Your task to perform on an android device: change the clock style Image 0: 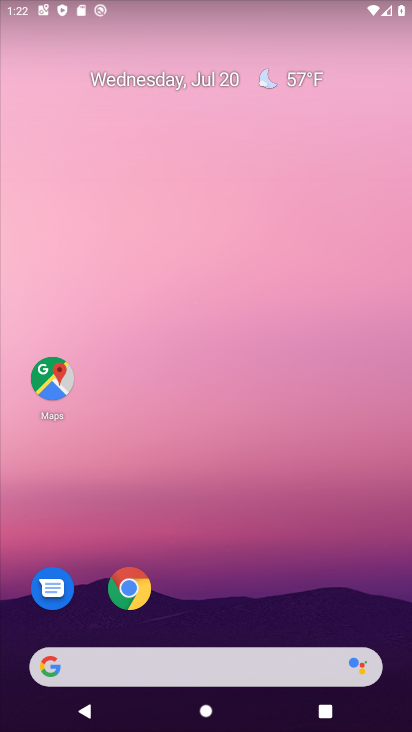
Step 0: press home button
Your task to perform on an android device: change the clock style Image 1: 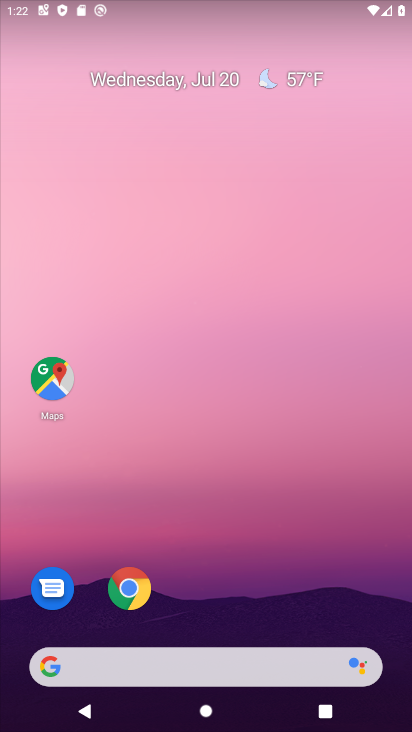
Step 1: drag from (91, 602) to (254, 148)
Your task to perform on an android device: change the clock style Image 2: 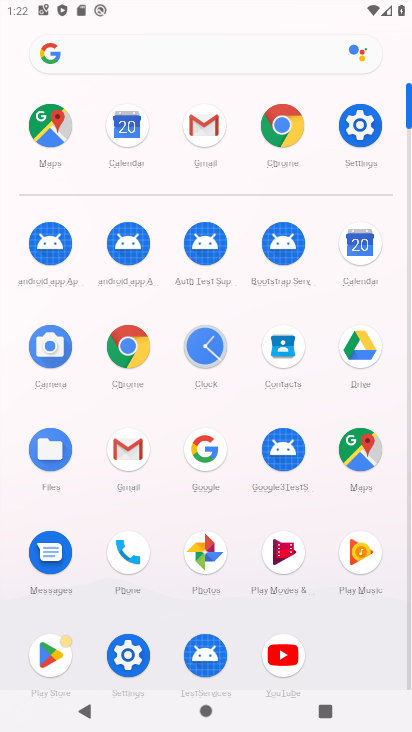
Step 2: click (196, 351)
Your task to perform on an android device: change the clock style Image 3: 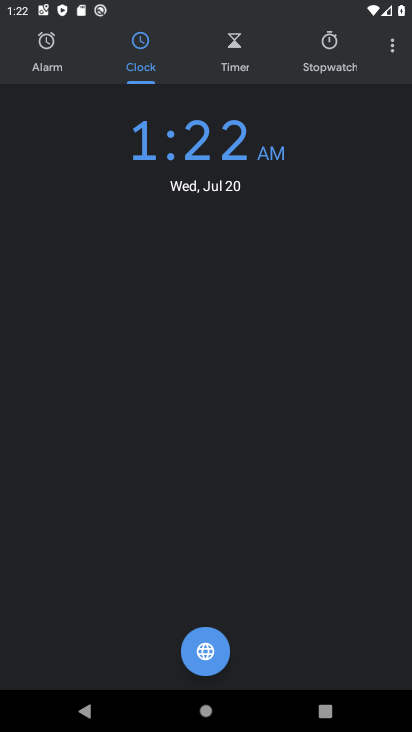
Step 3: click (389, 53)
Your task to perform on an android device: change the clock style Image 4: 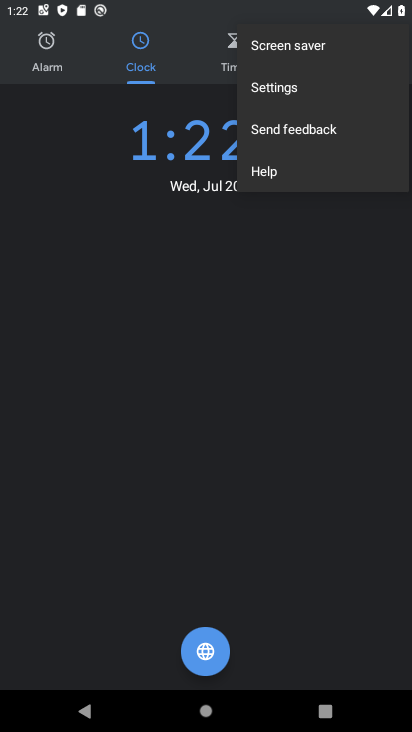
Step 4: click (276, 100)
Your task to perform on an android device: change the clock style Image 5: 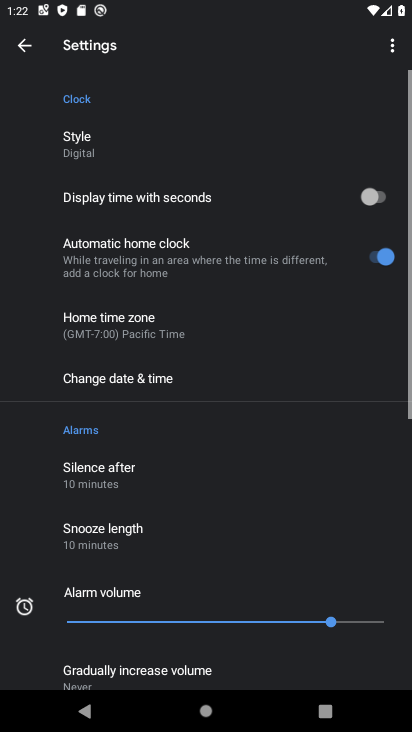
Step 5: click (82, 119)
Your task to perform on an android device: change the clock style Image 6: 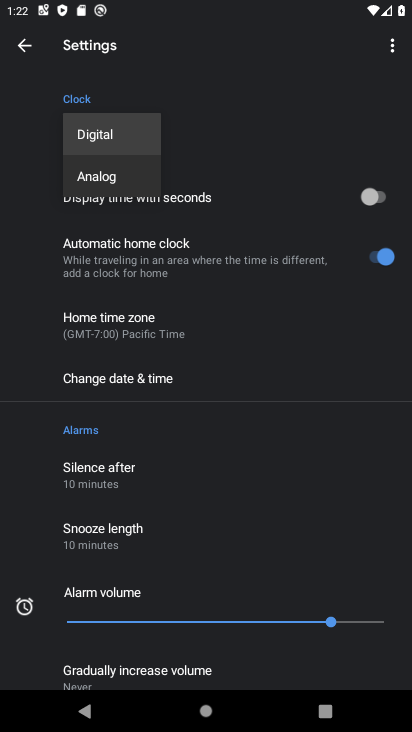
Step 6: click (105, 172)
Your task to perform on an android device: change the clock style Image 7: 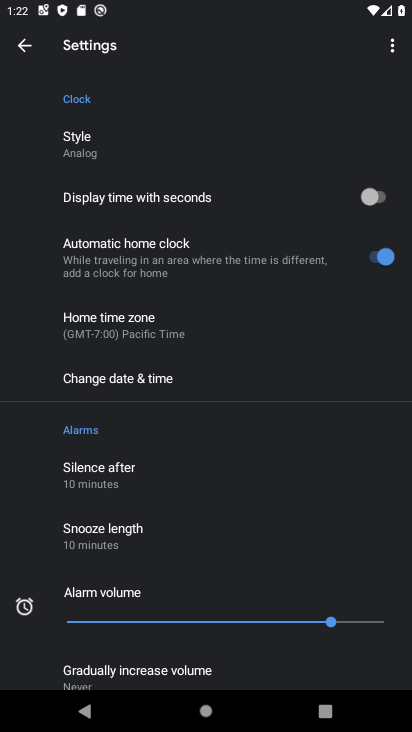
Step 7: task complete